Your task to perform on an android device: turn on the 24-hour format for clock Image 0: 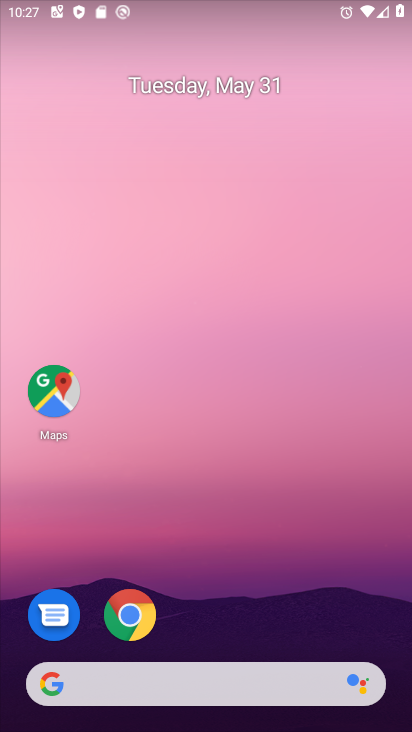
Step 0: drag from (272, 582) to (328, 5)
Your task to perform on an android device: turn on the 24-hour format for clock Image 1: 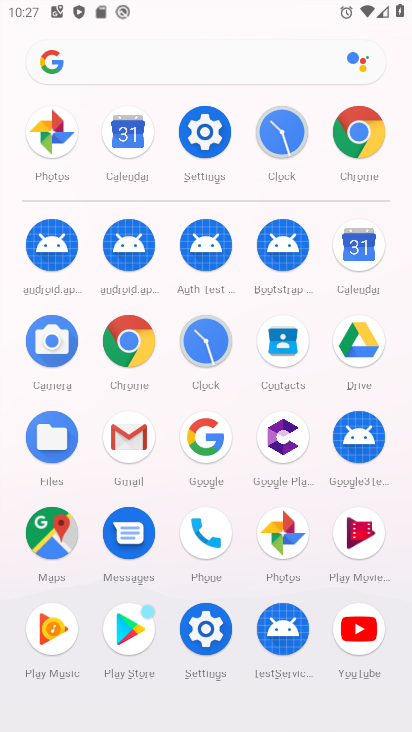
Step 1: click (221, 338)
Your task to perform on an android device: turn on the 24-hour format for clock Image 2: 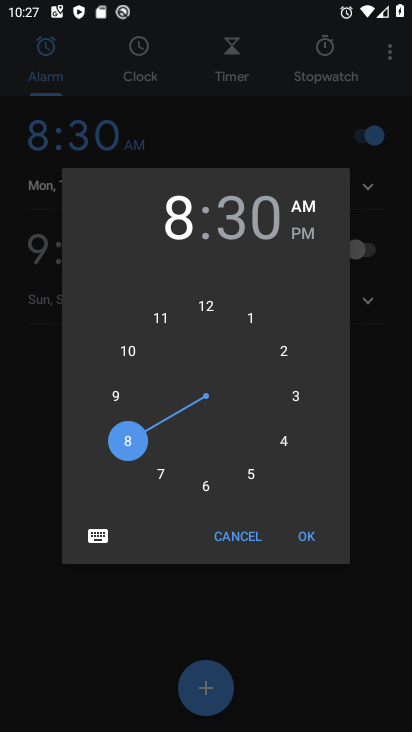
Step 2: click (252, 546)
Your task to perform on an android device: turn on the 24-hour format for clock Image 3: 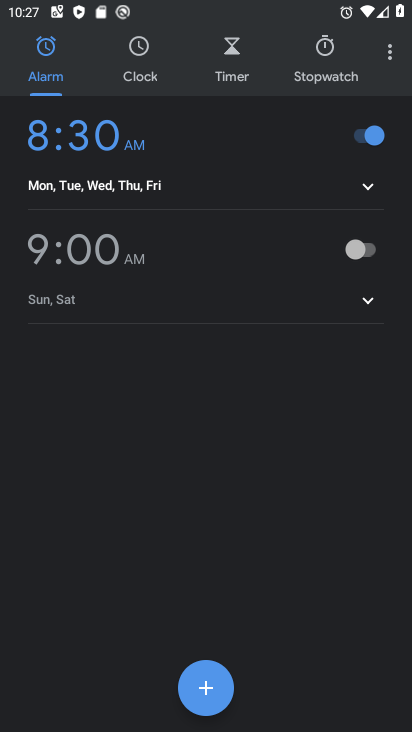
Step 3: click (397, 58)
Your task to perform on an android device: turn on the 24-hour format for clock Image 4: 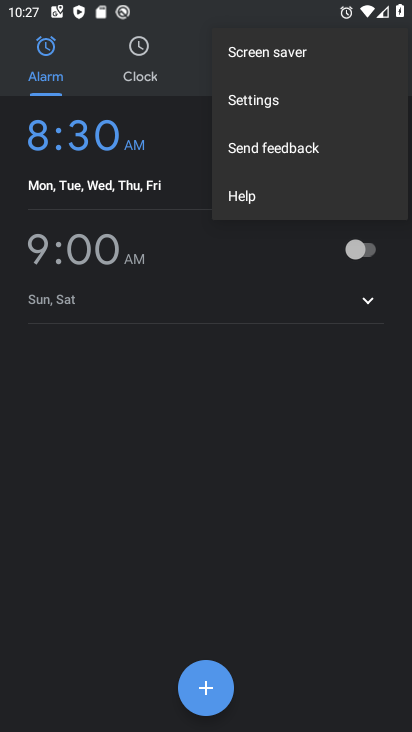
Step 4: click (298, 104)
Your task to perform on an android device: turn on the 24-hour format for clock Image 5: 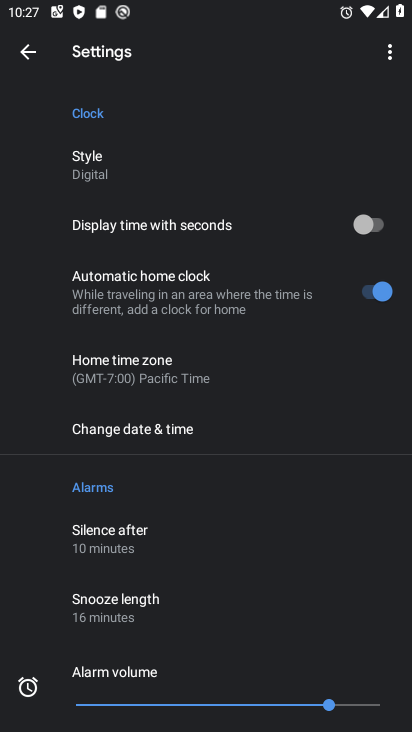
Step 5: click (133, 439)
Your task to perform on an android device: turn on the 24-hour format for clock Image 6: 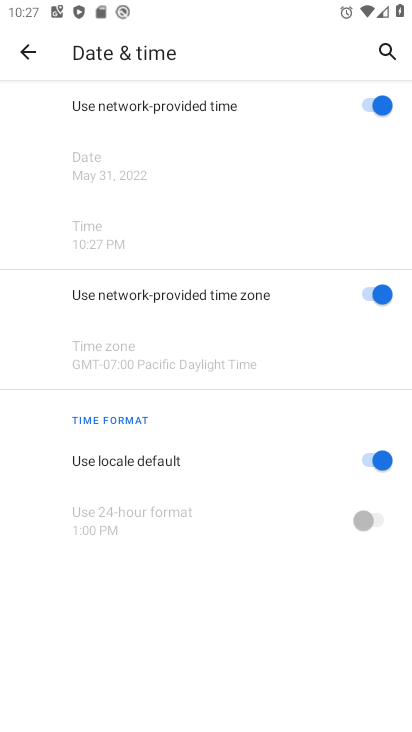
Step 6: task complete